Your task to perform on an android device: toggle javascript in the chrome app Image 0: 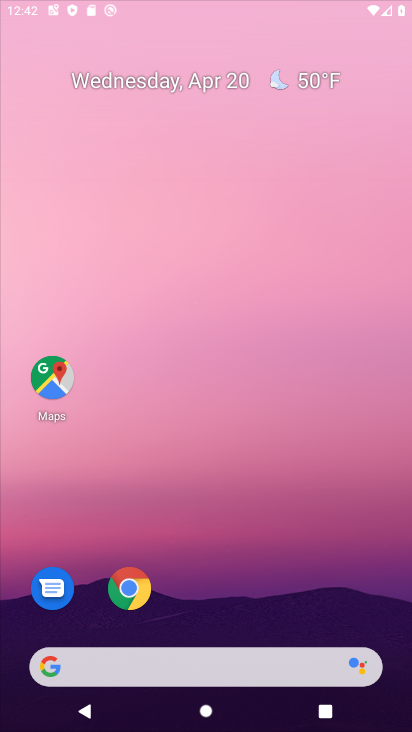
Step 0: click (232, 333)
Your task to perform on an android device: toggle javascript in the chrome app Image 1: 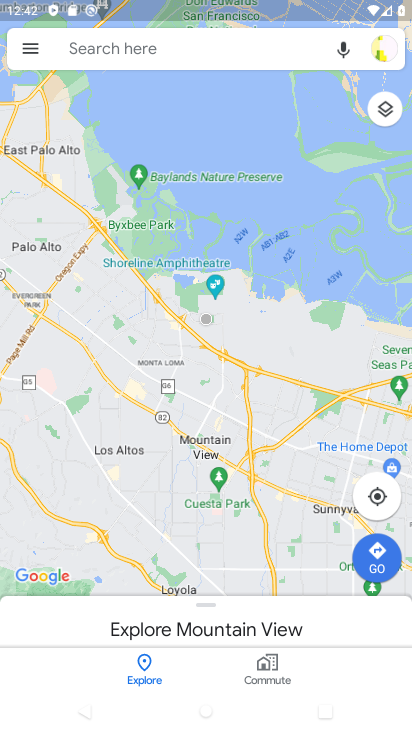
Step 1: press home button
Your task to perform on an android device: toggle javascript in the chrome app Image 2: 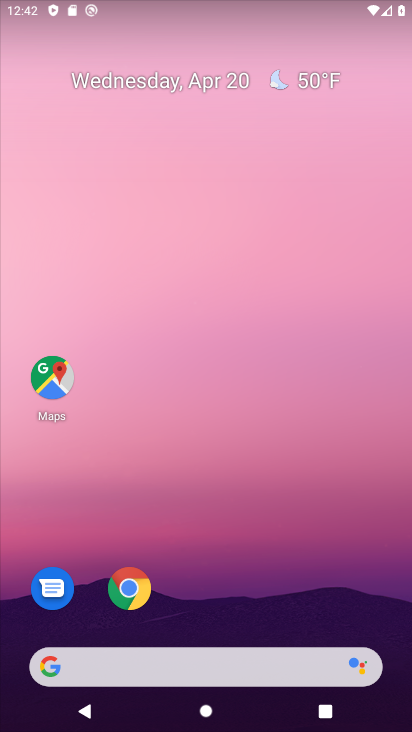
Step 2: drag from (171, 642) to (208, 252)
Your task to perform on an android device: toggle javascript in the chrome app Image 3: 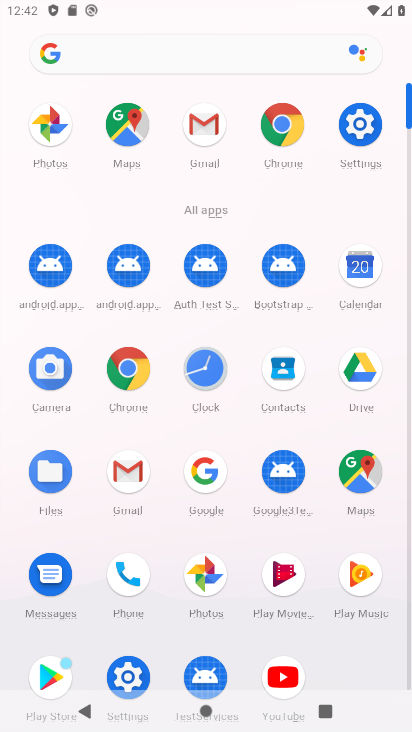
Step 3: click (281, 115)
Your task to perform on an android device: toggle javascript in the chrome app Image 4: 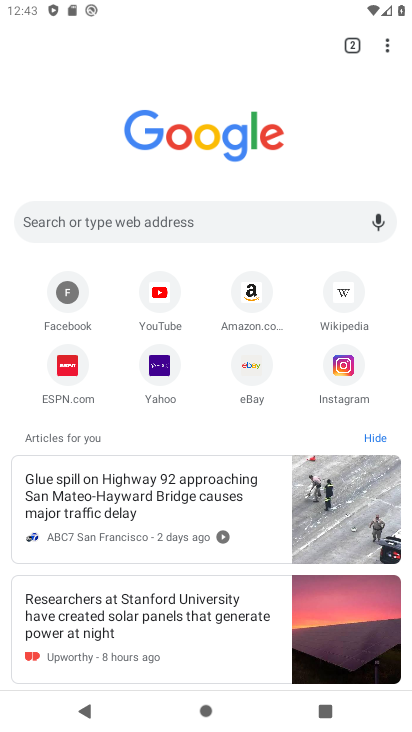
Step 4: click (386, 44)
Your task to perform on an android device: toggle javascript in the chrome app Image 5: 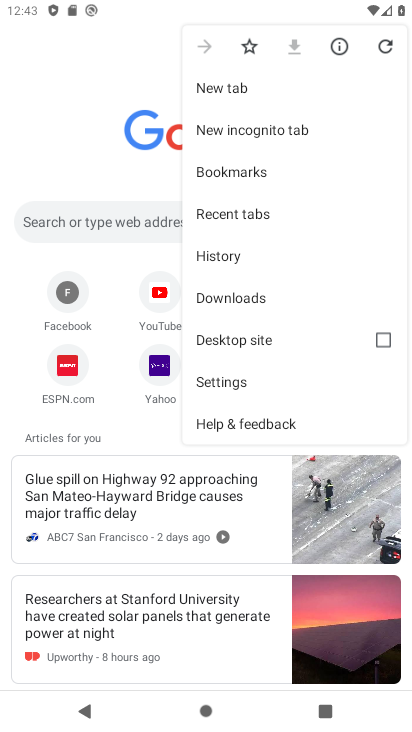
Step 5: click (232, 378)
Your task to perform on an android device: toggle javascript in the chrome app Image 6: 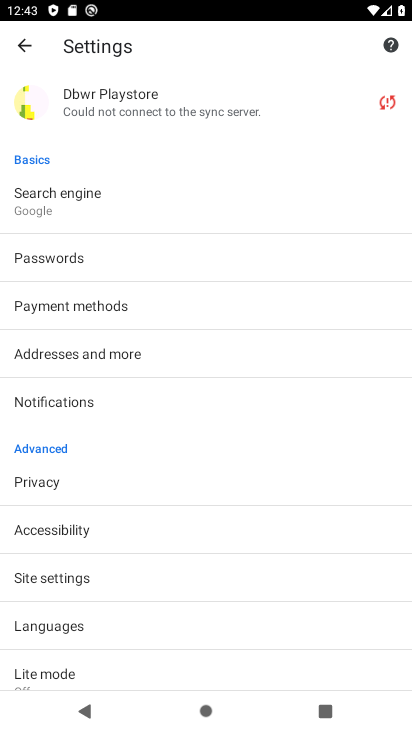
Step 6: click (65, 580)
Your task to perform on an android device: toggle javascript in the chrome app Image 7: 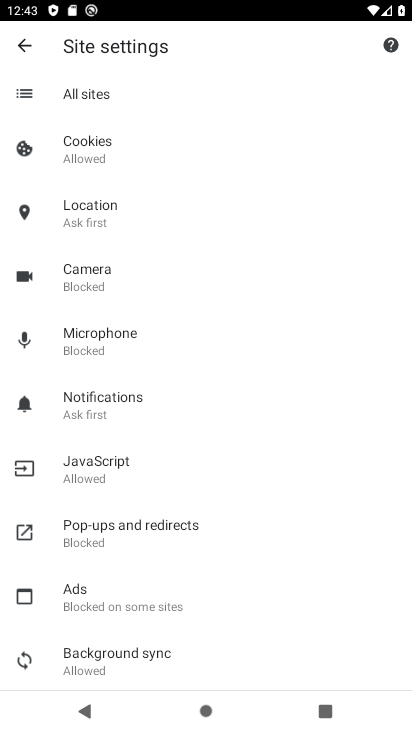
Step 7: click (94, 471)
Your task to perform on an android device: toggle javascript in the chrome app Image 8: 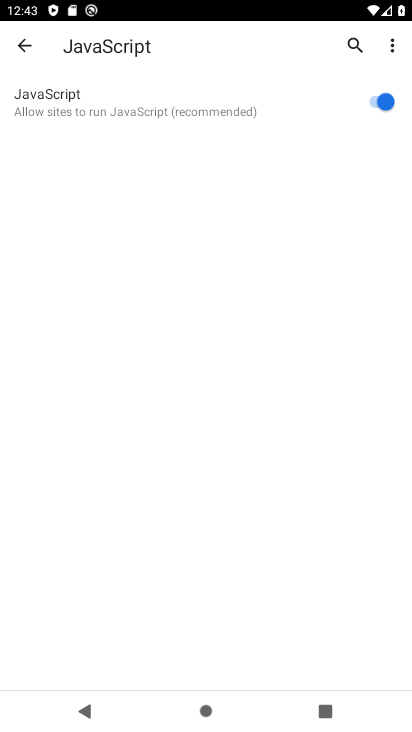
Step 8: click (371, 99)
Your task to perform on an android device: toggle javascript in the chrome app Image 9: 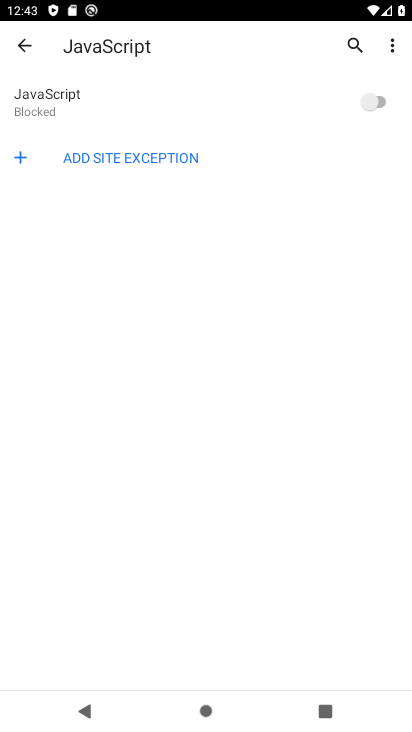
Step 9: task complete